Your task to perform on an android device: toggle priority inbox in the gmail app Image 0: 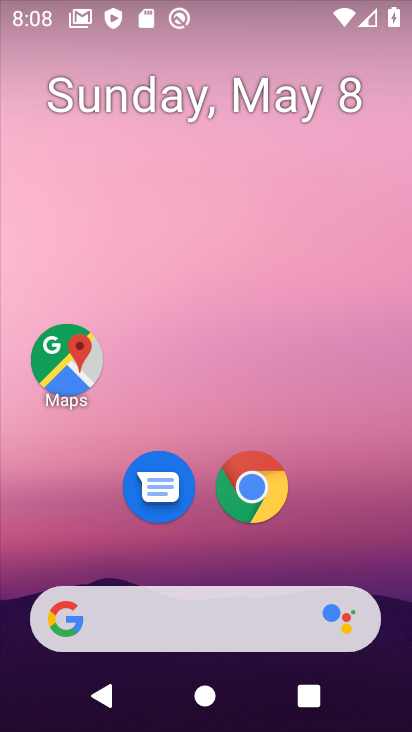
Step 0: drag from (312, 538) to (333, 162)
Your task to perform on an android device: toggle priority inbox in the gmail app Image 1: 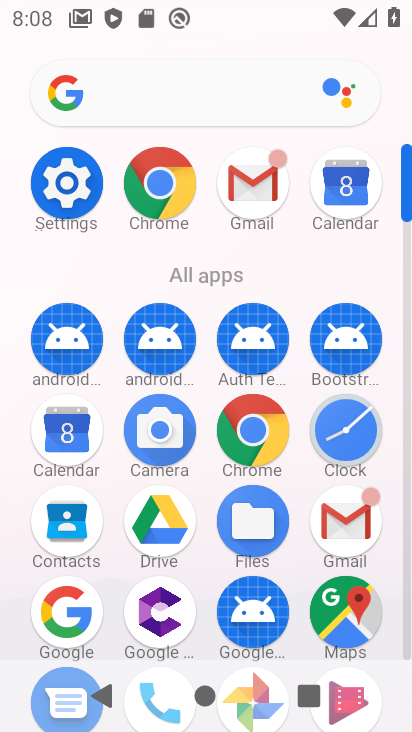
Step 1: click (350, 503)
Your task to perform on an android device: toggle priority inbox in the gmail app Image 2: 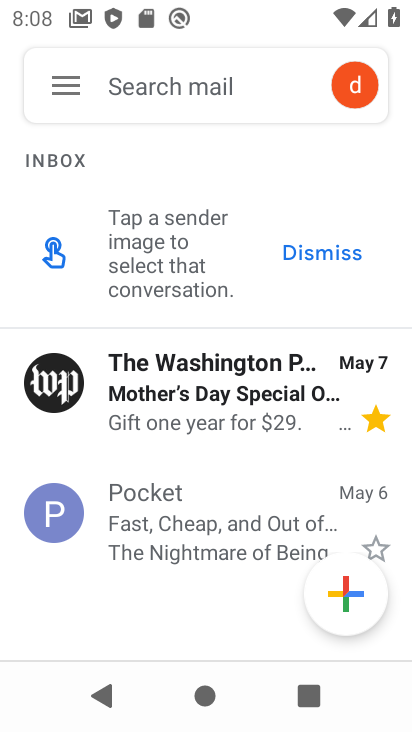
Step 2: click (59, 84)
Your task to perform on an android device: toggle priority inbox in the gmail app Image 3: 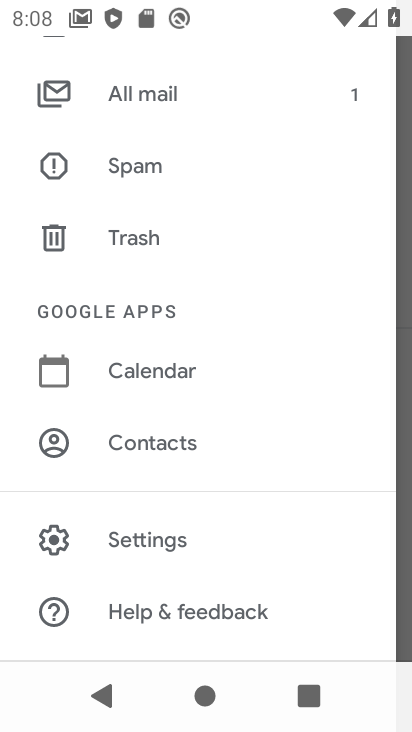
Step 3: click (132, 536)
Your task to perform on an android device: toggle priority inbox in the gmail app Image 4: 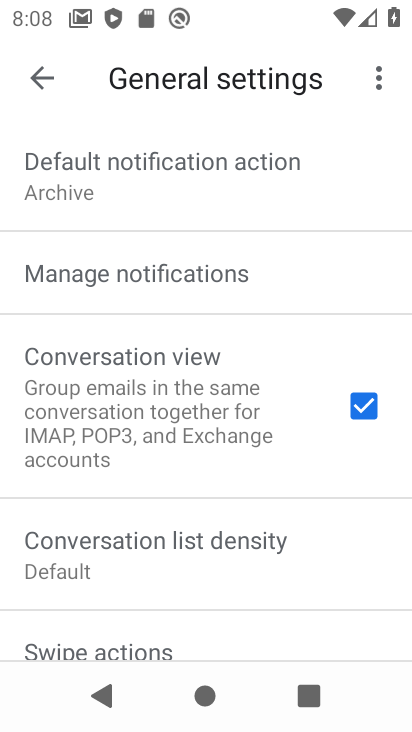
Step 4: drag from (180, 563) to (166, 233)
Your task to perform on an android device: toggle priority inbox in the gmail app Image 5: 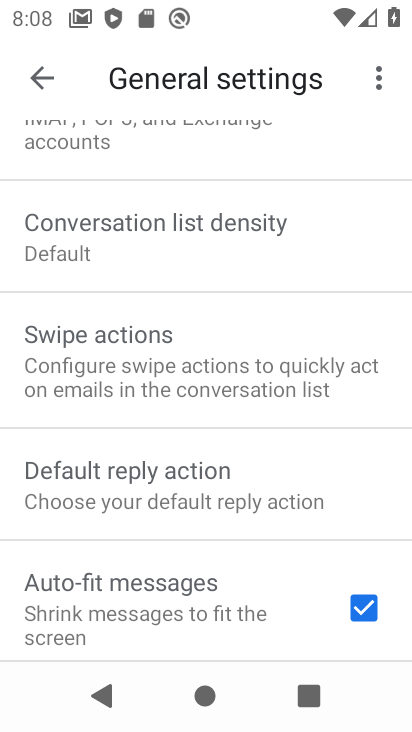
Step 5: click (40, 72)
Your task to perform on an android device: toggle priority inbox in the gmail app Image 6: 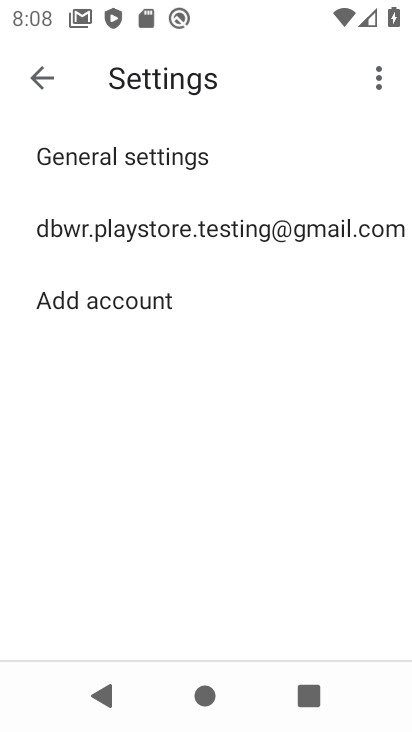
Step 6: click (99, 261)
Your task to perform on an android device: toggle priority inbox in the gmail app Image 7: 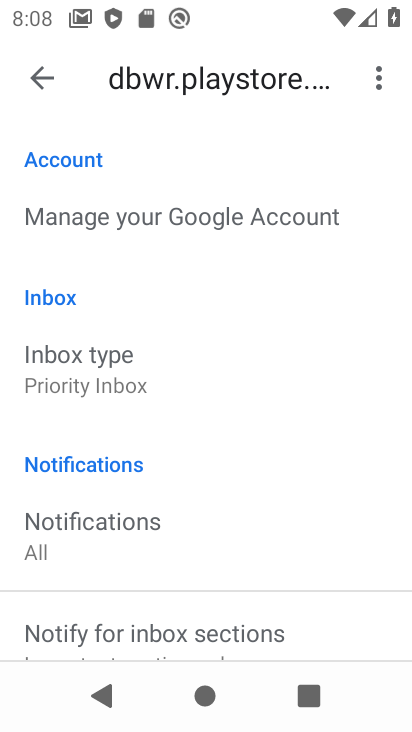
Step 7: click (103, 312)
Your task to perform on an android device: toggle priority inbox in the gmail app Image 8: 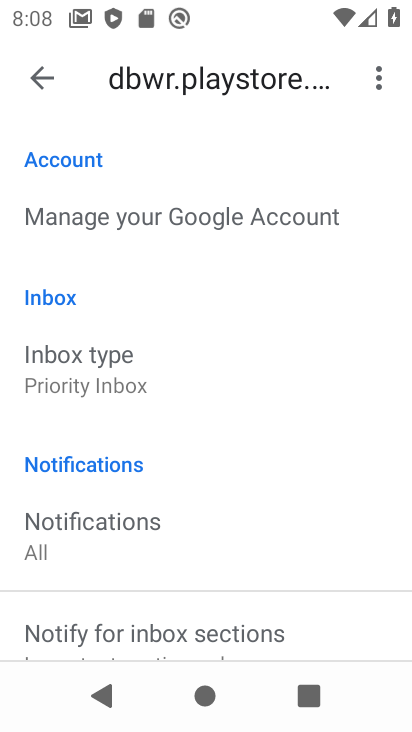
Step 8: click (100, 360)
Your task to perform on an android device: toggle priority inbox in the gmail app Image 9: 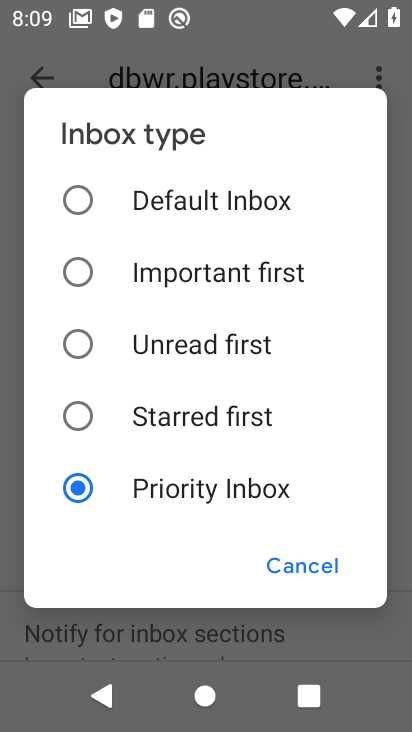
Step 9: task complete